Your task to perform on an android device: Go to Google Image 0: 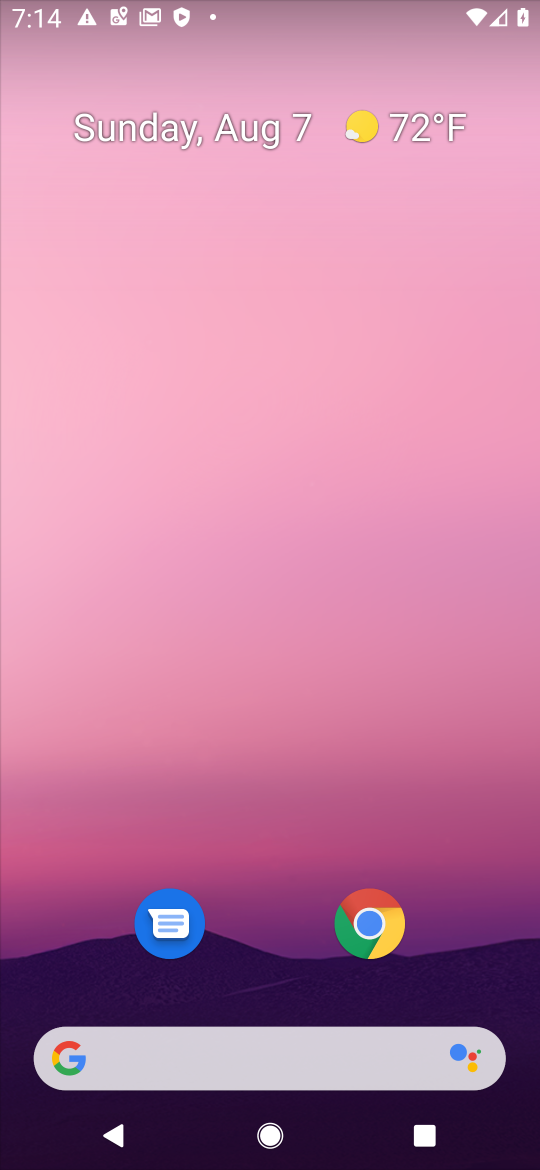
Step 0: drag from (510, 953) to (274, 2)
Your task to perform on an android device: Go to Google Image 1: 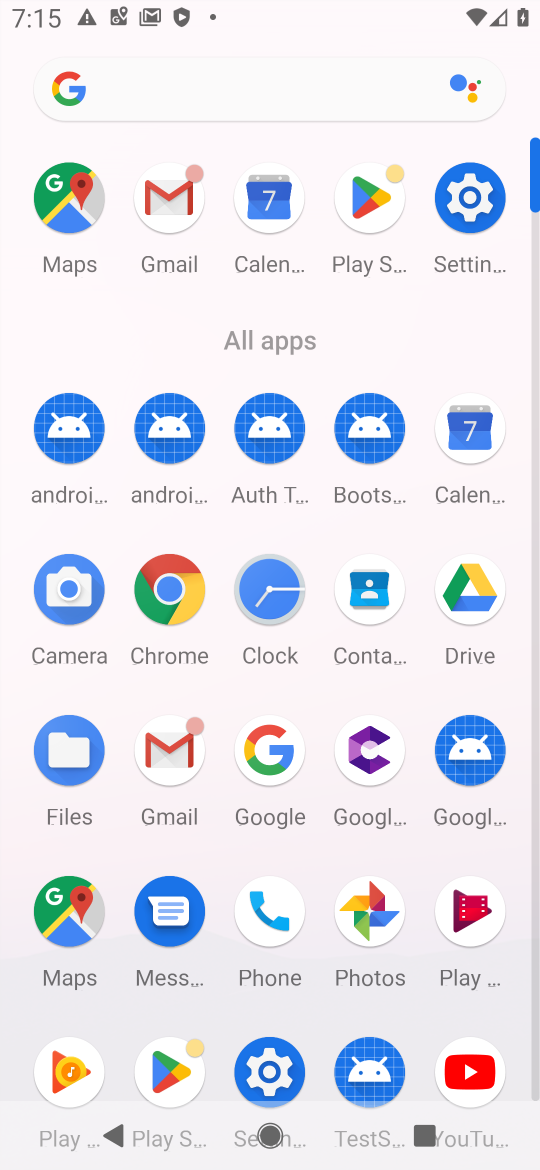
Step 1: click (265, 759)
Your task to perform on an android device: Go to Google Image 2: 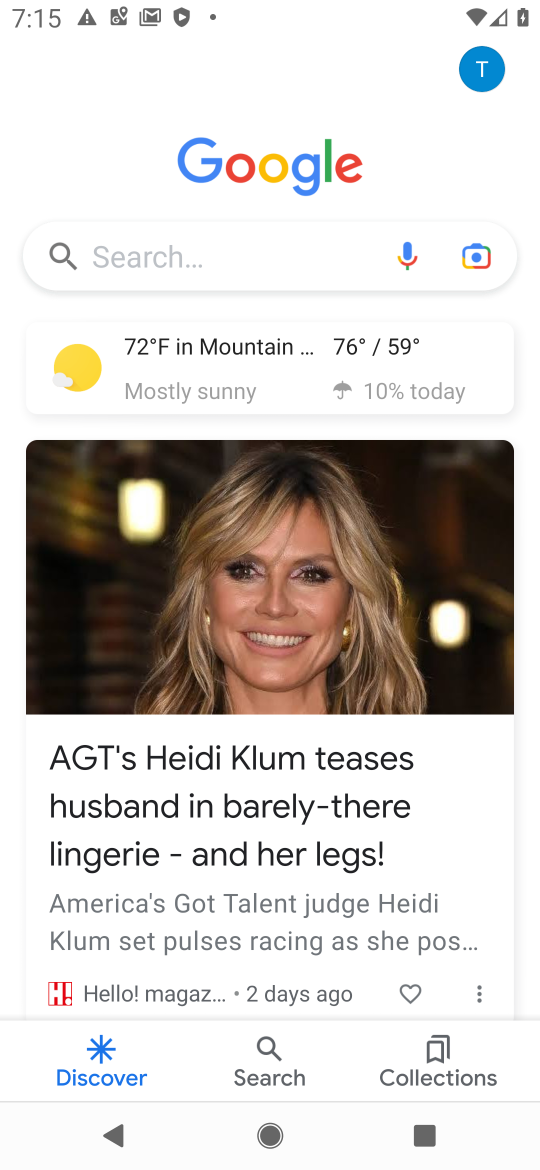
Step 2: task complete